Your task to perform on an android device: change the clock display to show seconds Image 0: 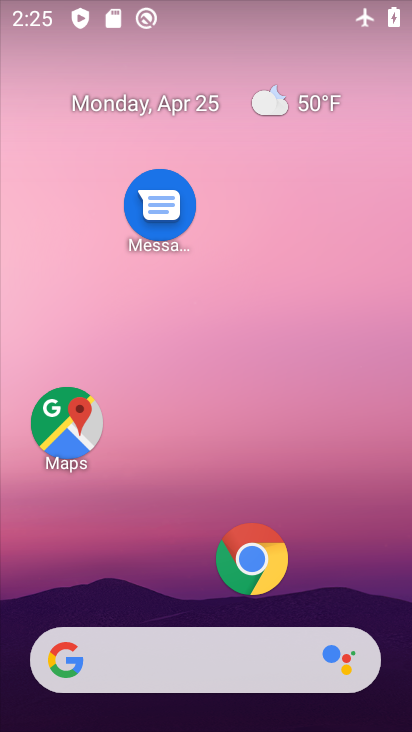
Step 0: drag from (203, 731) to (247, 729)
Your task to perform on an android device: change the clock display to show seconds Image 1: 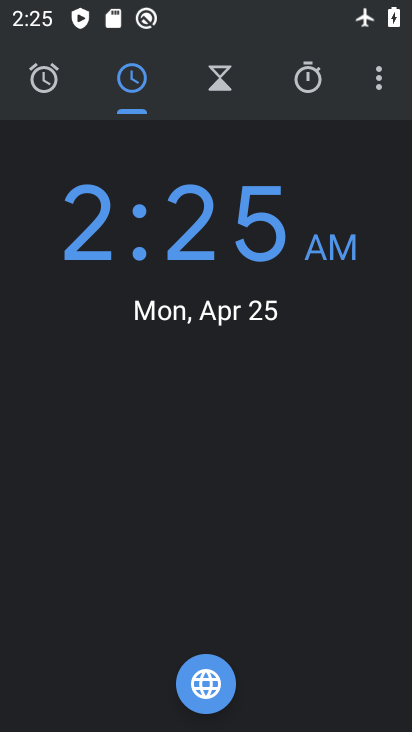
Step 1: drag from (339, 12) to (325, 684)
Your task to perform on an android device: change the clock display to show seconds Image 2: 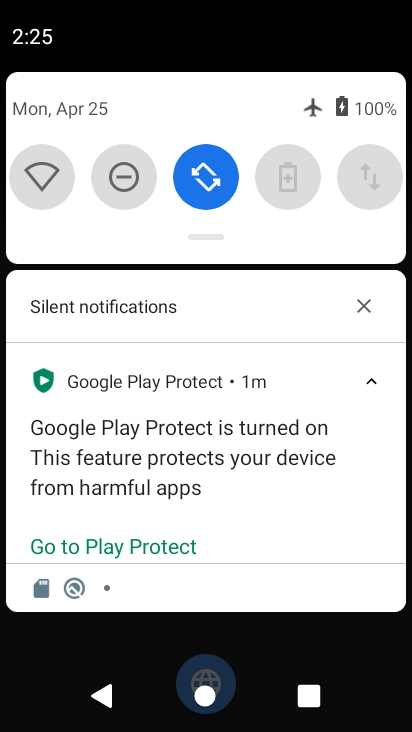
Step 2: drag from (269, 215) to (163, 723)
Your task to perform on an android device: change the clock display to show seconds Image 3: 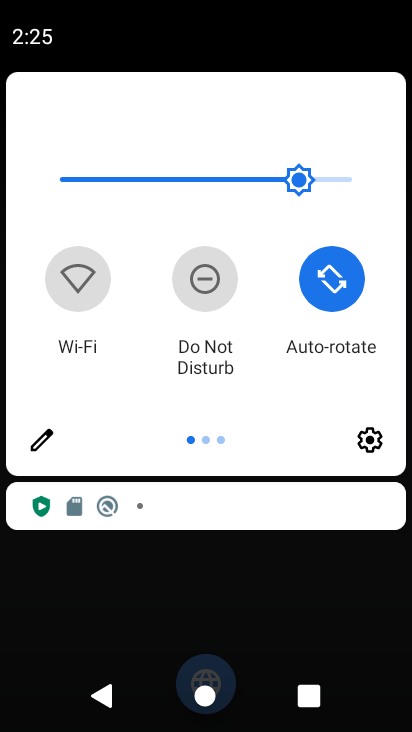
Step 3: drag from (334, 303) to (0, 299)
Your task to perform on an android device: change the clock display to show seconds Image 4: 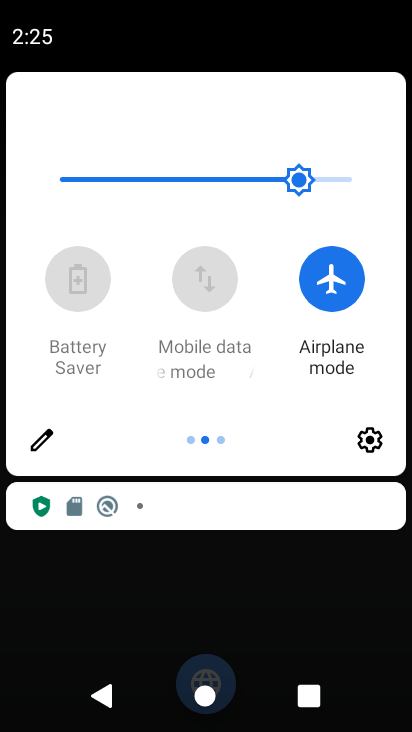
Step 4: click (356, 303)
Your task to perform on an android device: change the clock display to show seconds Image 5: 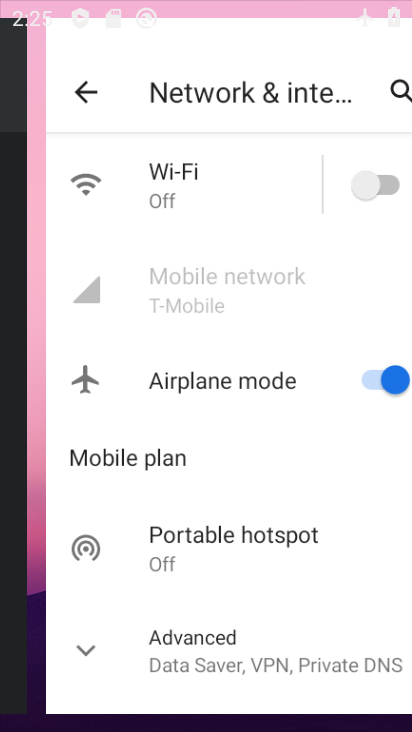
Step 5: click (315, 595)
Your task to perform on an android device: change the clock display to show seconds Image 6: 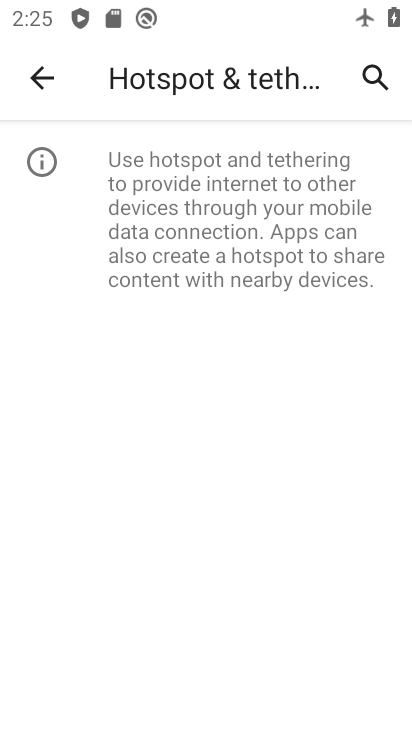
Step 6: click (51, 78)
Your task to perform on an android device: change the clock display to show seconds Image 7: 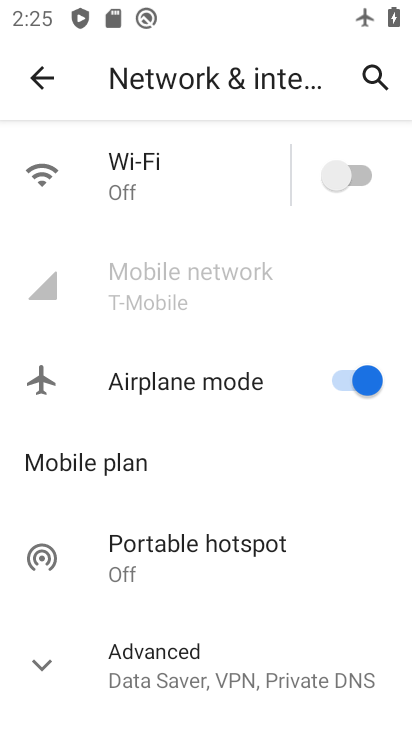
Step 7: click (336, 373)
Your task to perform on an android device: change the clock display to show seconds Image 8: 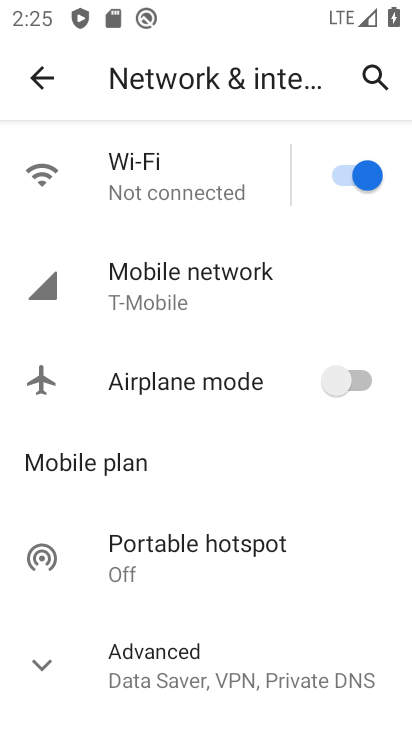
Step 8: click (48, 71)
Your task to perform on an android device: change the clock display to show seconds Image 9: 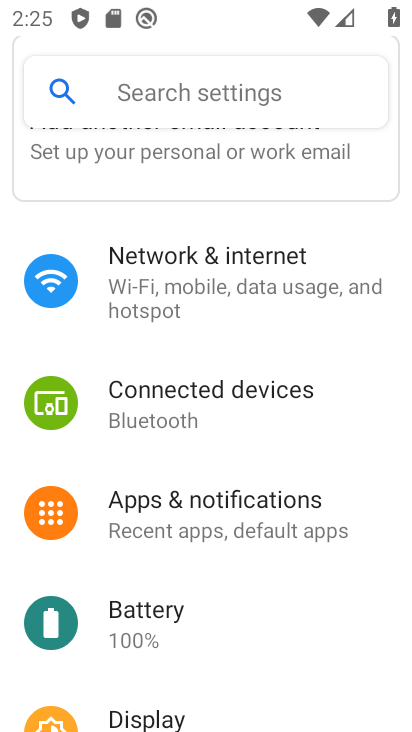
Step 9: press back button
Your task to perform on an android device: change the clock display to show seconds Image 10: 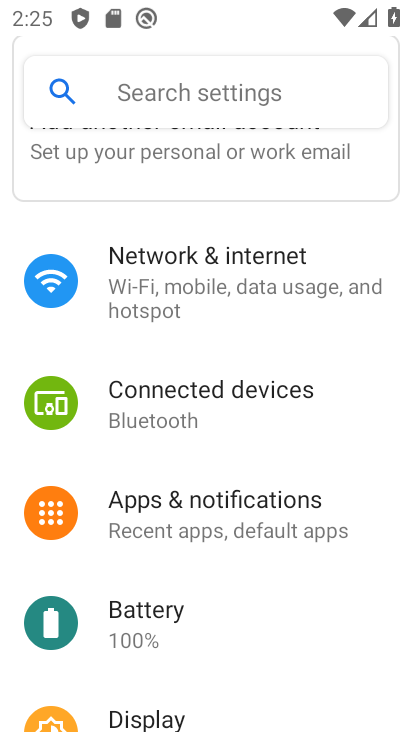
Step 10: press back button
Your task to perform on an android device: change the clock display to show seconds Image 11: 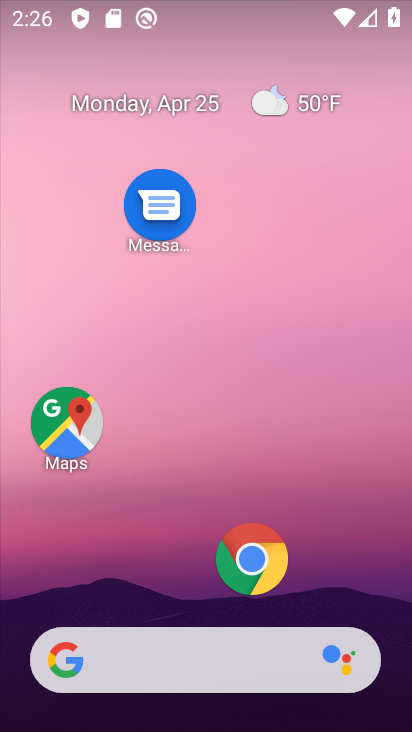
Step 11: drag from (154, 571) to (317, 3)
Your task to perform on an android device: change the clock display to show seconds Image 12: 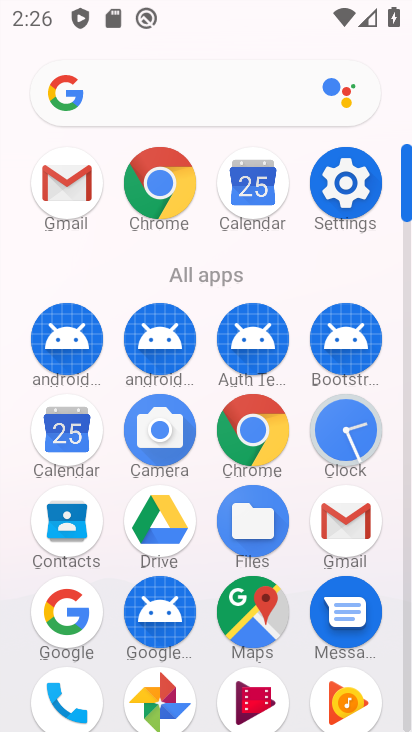
Step 12: click (349, 421)
Your task to perform on an android device: change the clock display to show seconds Image 13: 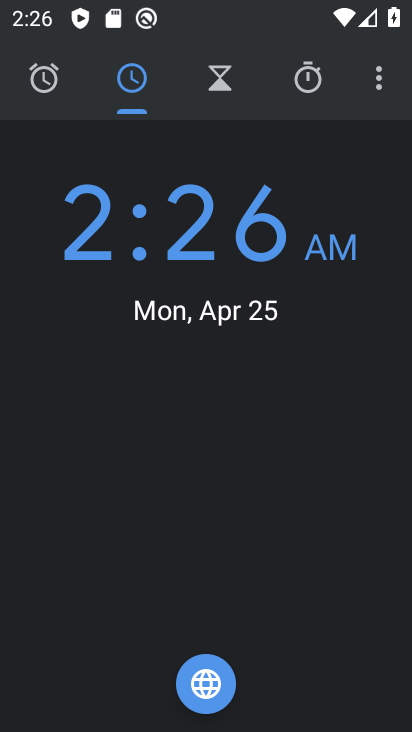
Step 13: click (377, 85)
Your task to perform on an android device: change the clock display to show seconds Image 14: 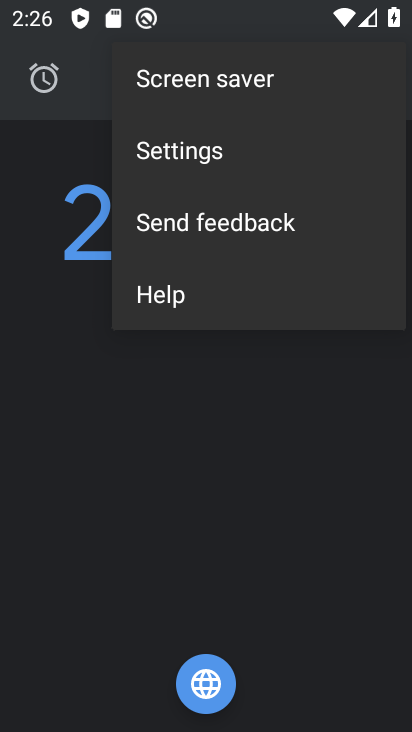
Step 14: click (168, 162)
Your task to perform on an android device: change the clock display to show seconds Image 15: 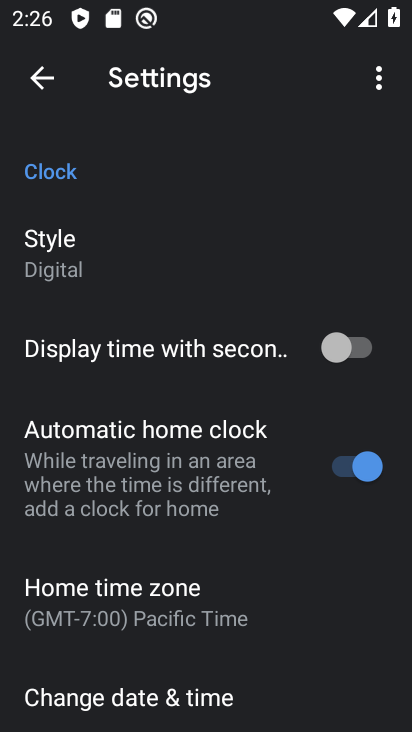
Step 15: click (109, 264)
Your task to perform on an android device: change the clock display to show seconds Image 16: 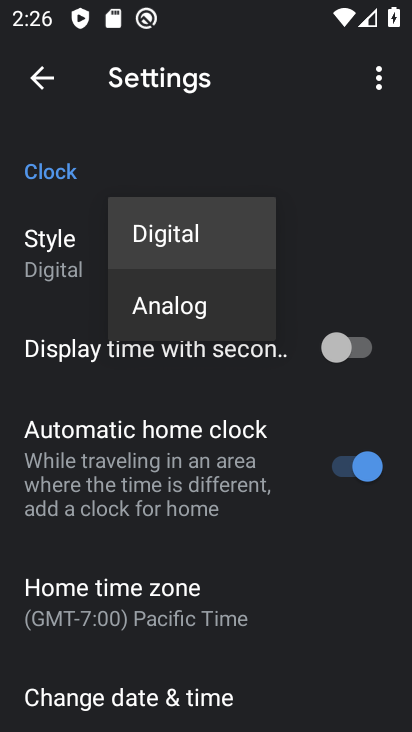
Step 16: click (166, 309)
Your task to perform on an android device: change the clock display to show seconds Image 17: 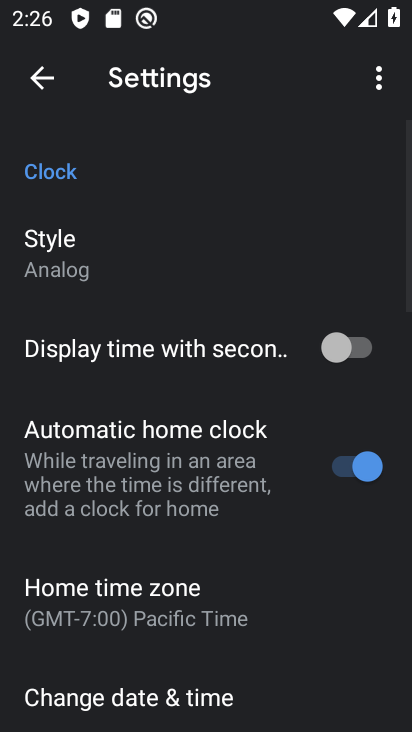
Step 17: click (362, 344)
Your task to perform on an android device: change the clock display to show seconds Image 18: 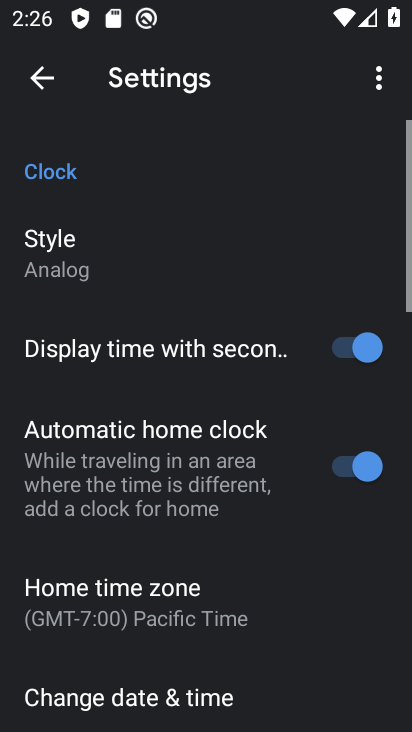
Step 18: task complete